Your task to perform on an android device: turn off notifications in google photos Image 0: 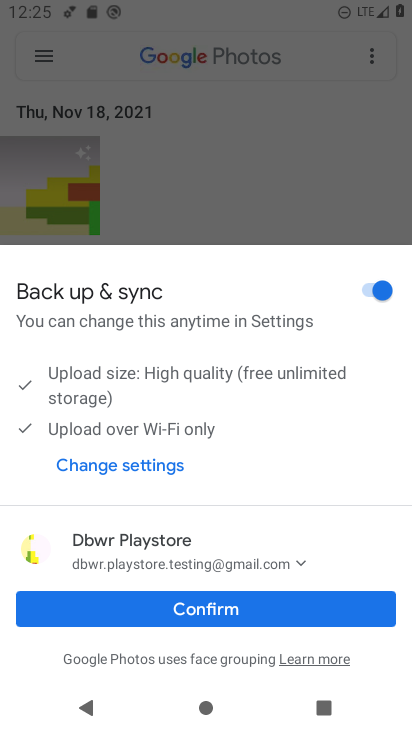
Step 0: press home button
Your task to perform on an android device: turn off notifications in google photos Image 1: 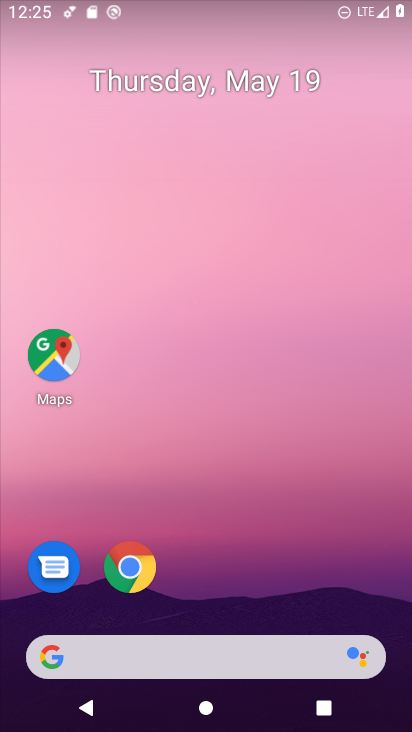
Step 1: drag from (277, 472) to (258, 110)
Your task to perform on an android device: turn off notifications in google photos Image 2: 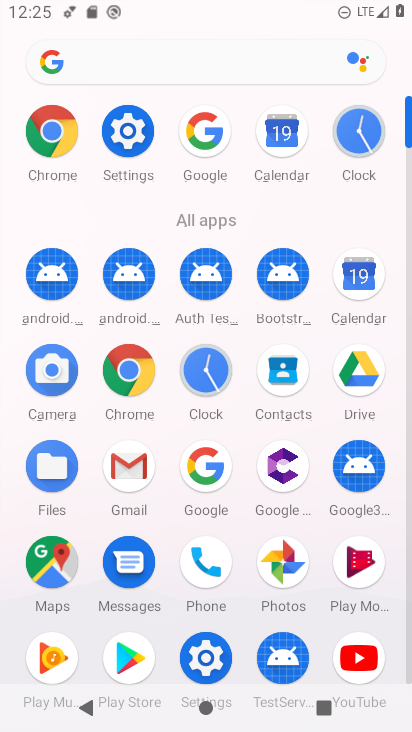
Step 2: click (278, 550)
Your task to perform on an android device: turn off notifications in google photos Image 3: 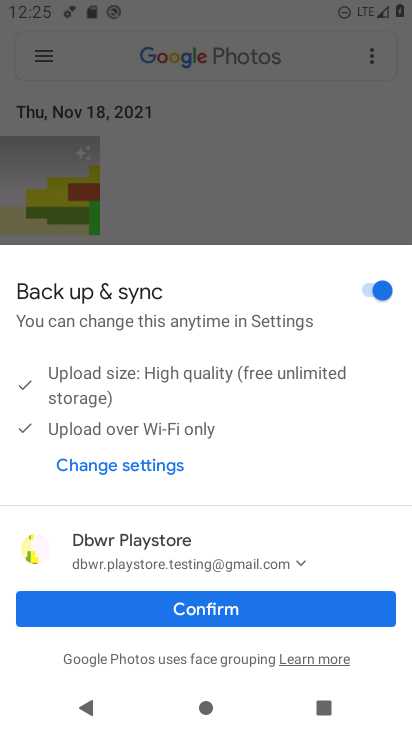
Step 3: click (290, 606)
Your task to perform on an android device: turn off notifications in google photos Image 4: 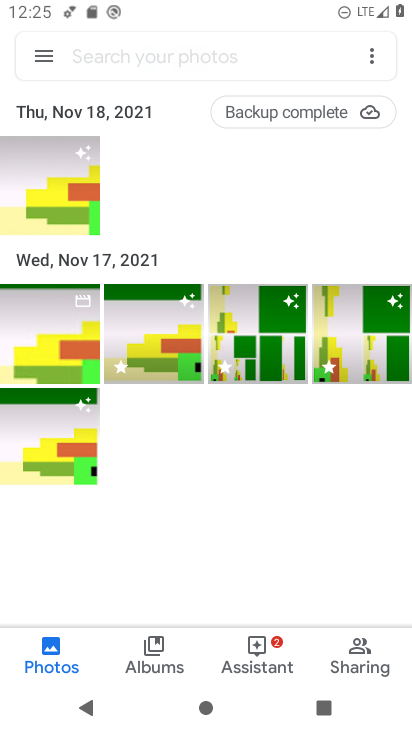
Step 4: click (32, 48)
Your task to perform on an android device: turn off notifications in google photos Image 5: 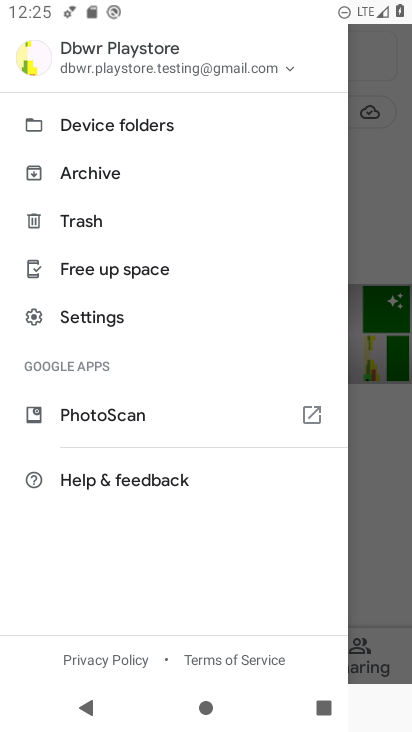
Step 5: click (109, 312)
Your task to perform on an android device: turn off notifications in google photos Image 6: 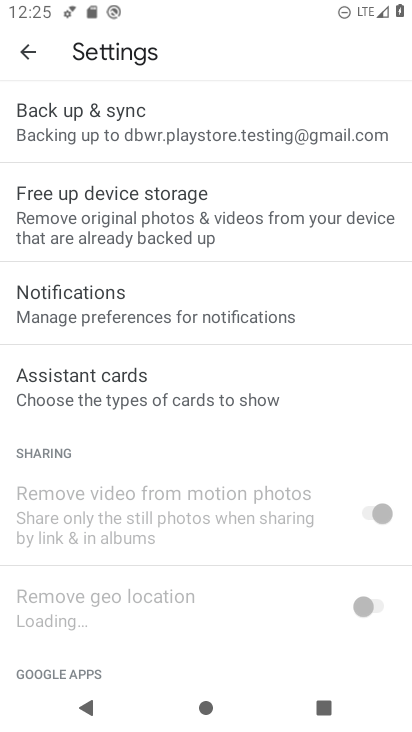
Step 6: drag from (175, 444) to (229, 76)
Your task to perform on an android device: turn off notifications in google photos Image 7: 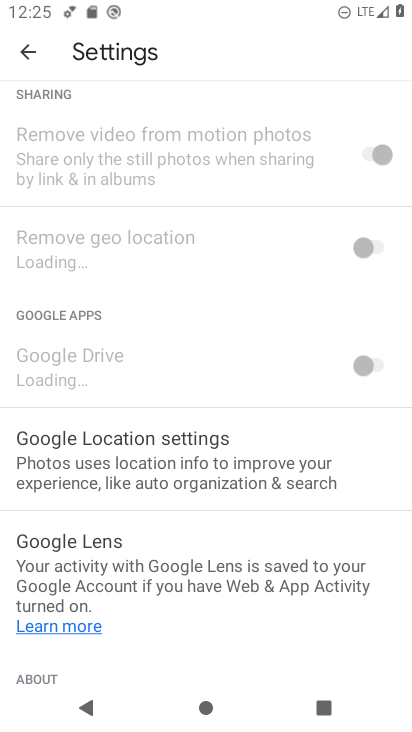
Step 7: drag from (228, 506) to (248, 207)
Your task to perform on an android device: turn off notifications in google photos Image 8: 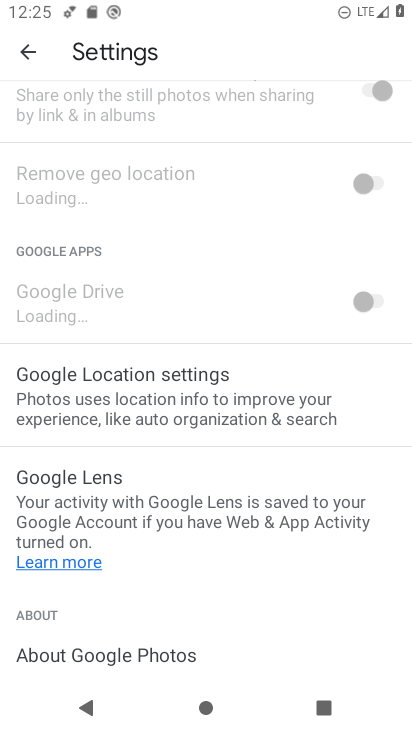
Step 8: drag from (242, 238) to (254, 477)
Your task to perform on an android device: turn off notifications in google photos Image 9: 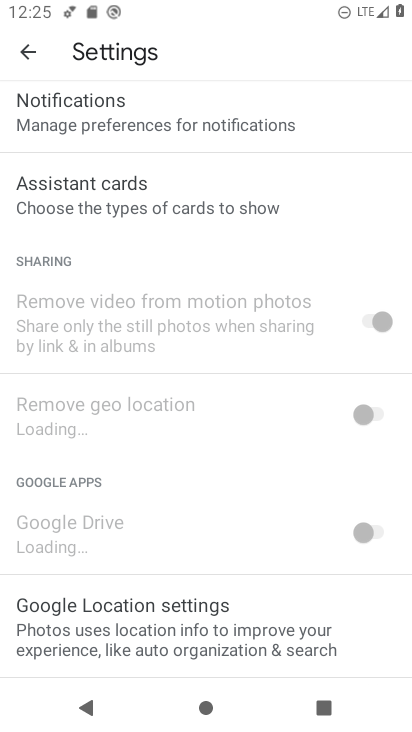
Step 9: drag from (213, 284) to (220, 441)
Your task to perform on an android device: turn off notifications in google photos Image 10: 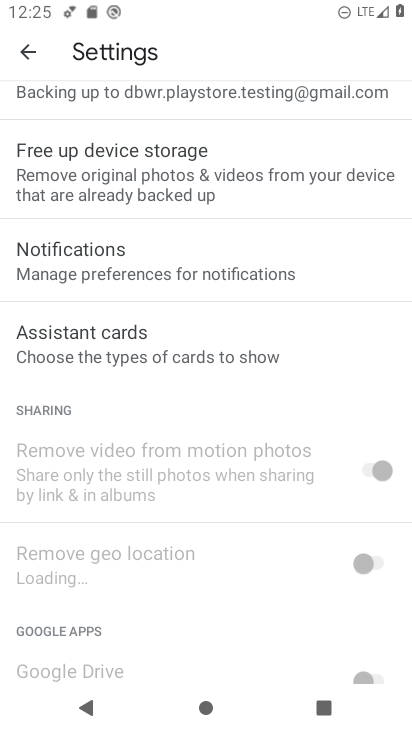
Step 10: click (183, 262)
Your task to perform on an android device: turn off notifications in google photos Image 11: 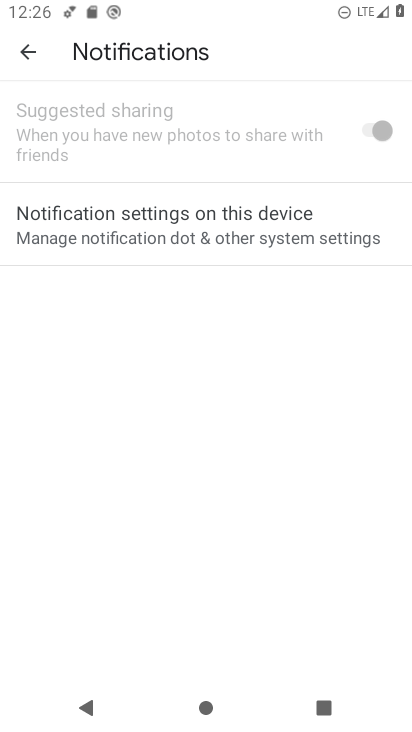
Step 11: click (368, 126)
Your task to perform on an android device: turn off notifications in google photos Image 12: 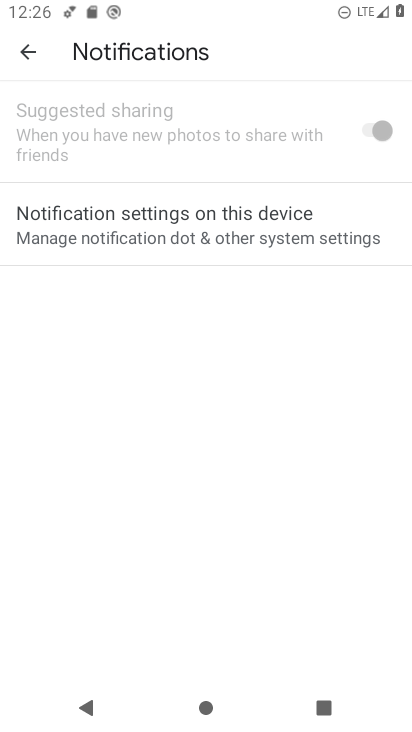
Step 12: click (368, 132)
Your task to perform on an android device: turn off notifications in google photos Image 13: 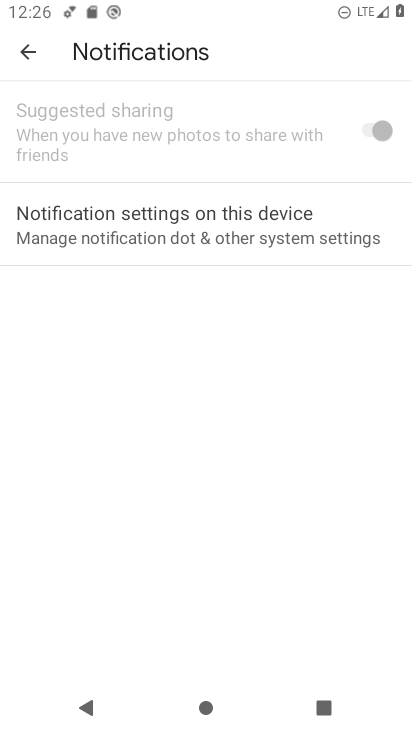
Step 13: click (368, 134)
Your task to perform on an android device: turn off notifications in google photos Image 14: 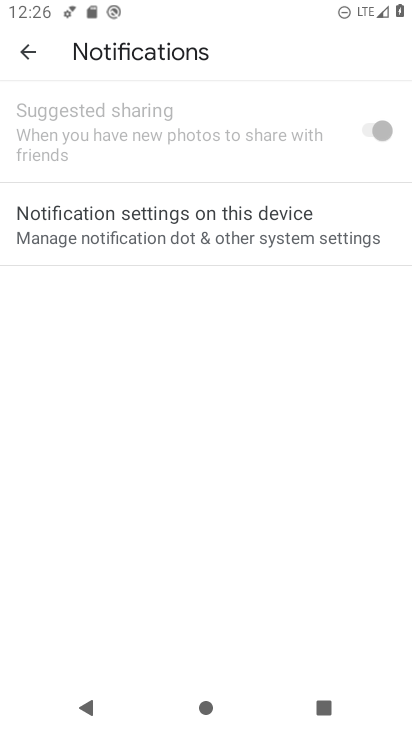
Step 14: click (368, 134)
Your task to perform on an android device: turn off notifications in google photos Image 15: 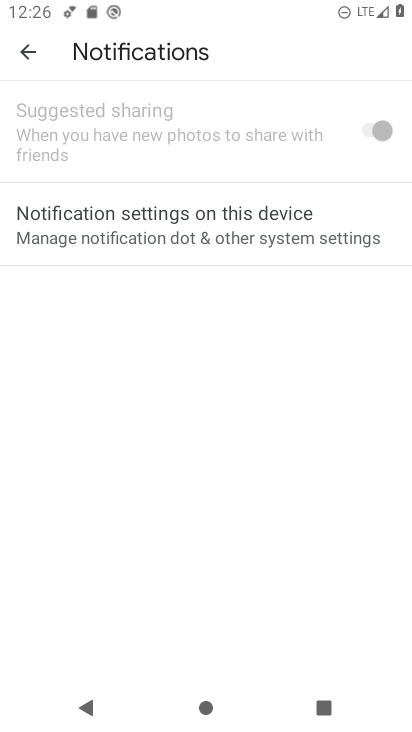
Step 15: click (295, 227)
Your task to perform on an android device: turn off notifications in google photos Image 16: 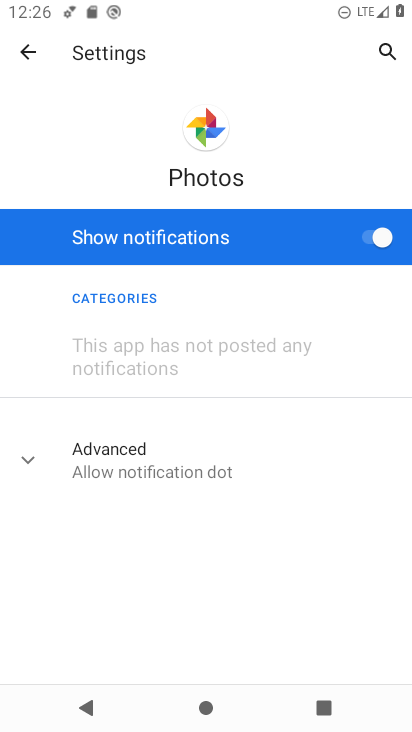
Step 16: click (367, 232)
Your task to perform on an android device: turn off notifications in google photos Image 17: 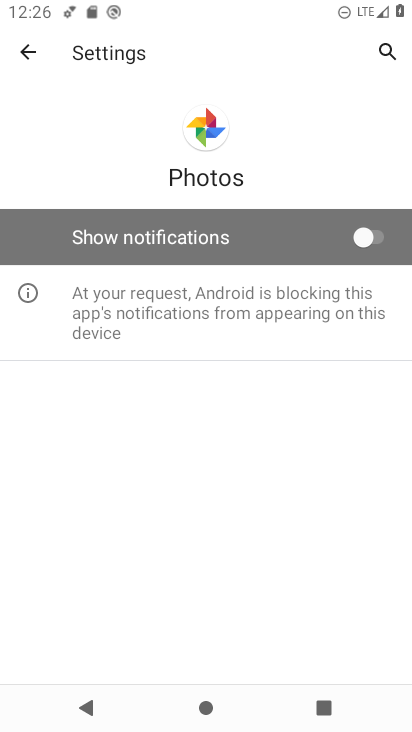
Step 17: task complete